Your task to perform on an android device: turn on sleep mode Image 0: 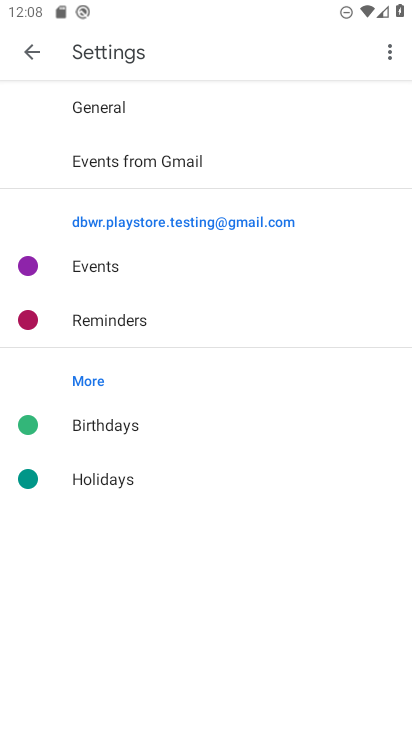
Step 0: press home button
Your task to perform on an android device: turn on sleep mode Image 1: 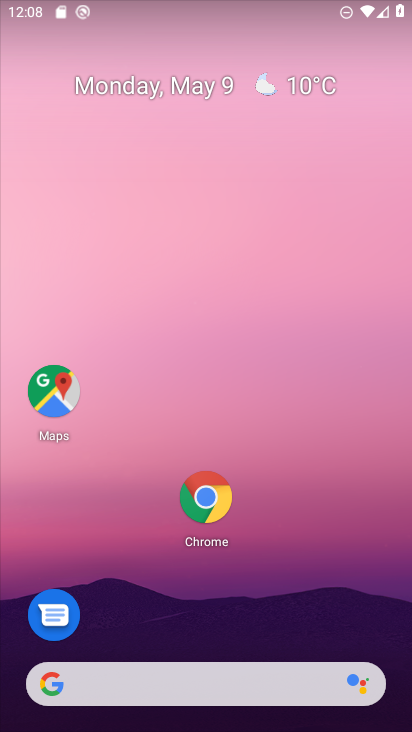
Step 1: drag from (287, 590) to (283, 0)
Your task to perform on an android device: turn on sleep mode Image 2: 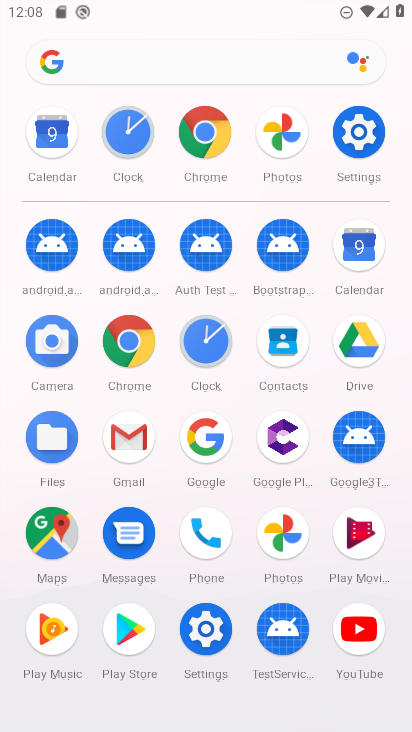
Step 2: click (343, 125)
Your task to perform on an android device: turn on sleep mode Image 3: 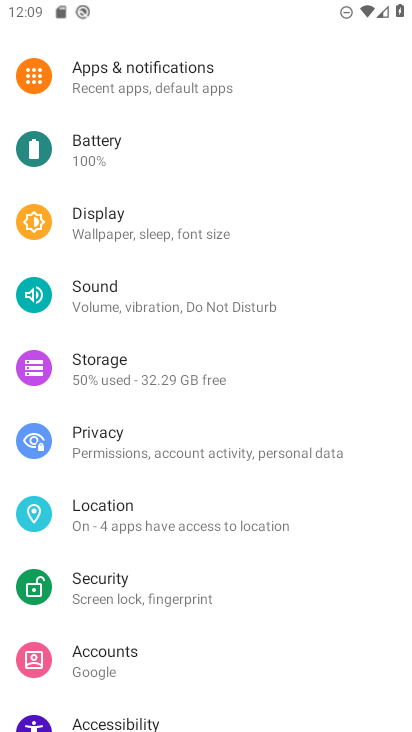
Step 3: click (137, 236)
Your task to perform on an android device: turn on sleep mode Image 4: 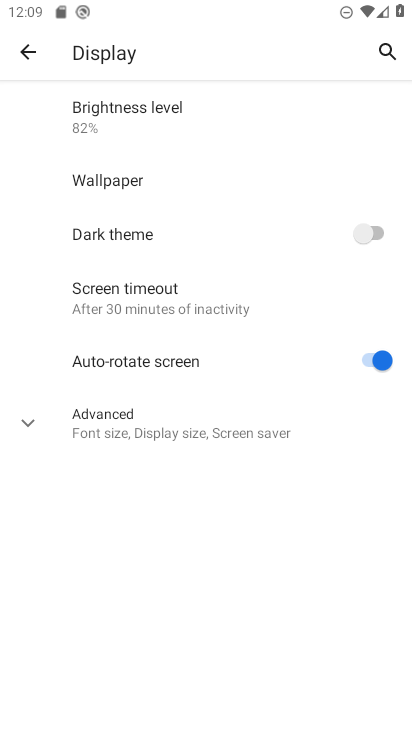
Step 4: click (120, 304)
Your task to perform on an android device: turn on sleep mode Image 5: 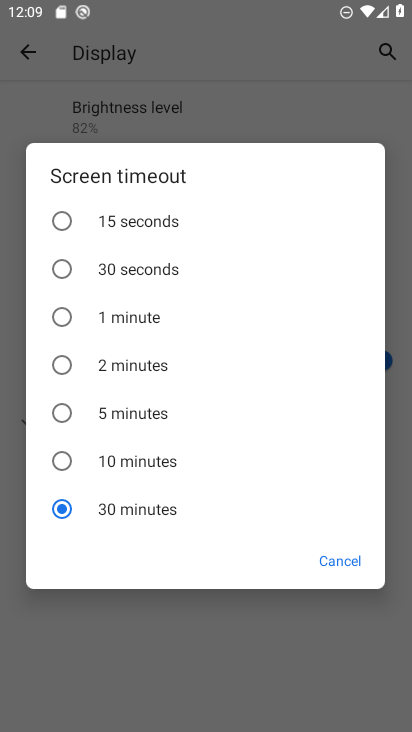
Step 5: task complete